Your task to perform on an android device: open app "ColorNote Notepad Notes" (install if not already installed) Image 0: 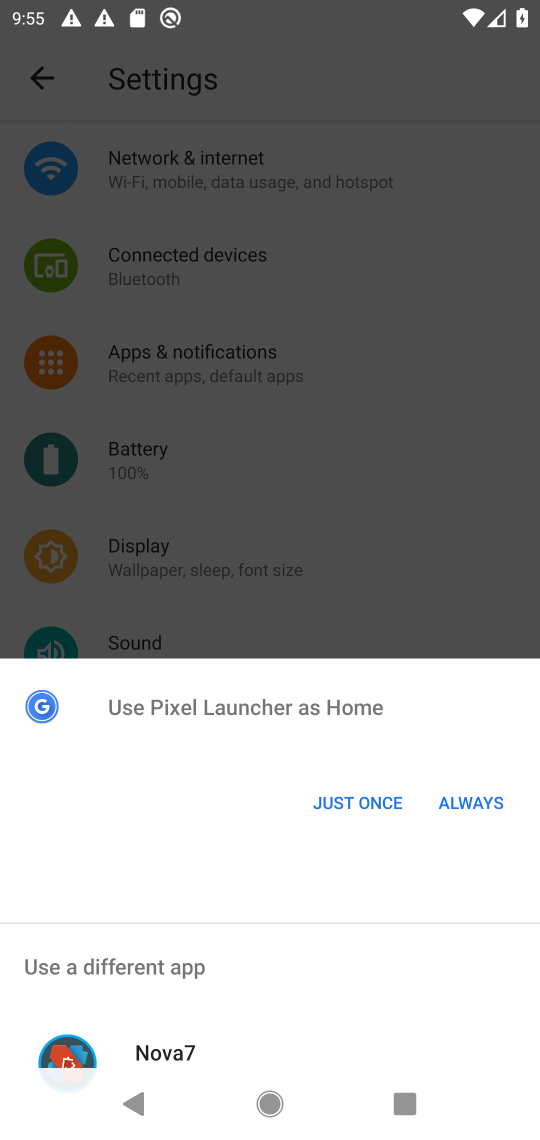
Step 0: click (376, 800)
Your task to perform on an android device: open app "ColorNote Notepad Notes" (install if not already installed) Image 1: 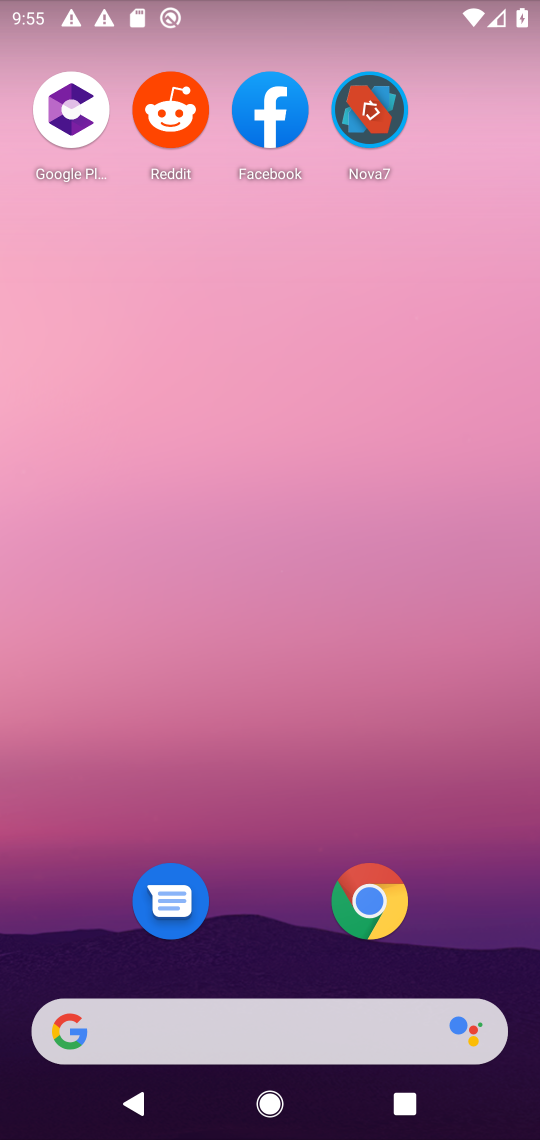
Step 1: drag from (327, 887) to (332, 243)
Your task to perform on an android device: open app "ColorNote Notepad Notes" (install if not already installed) Image 2: 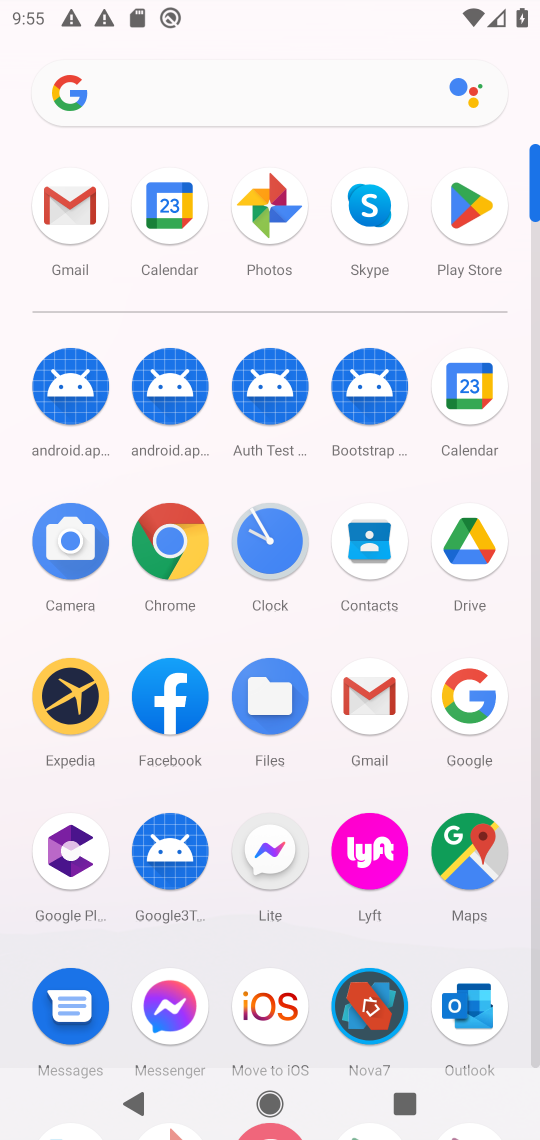
Step 2: click (486, 224)
Your task to perform on an android device: open app "ColorNote Notepad Notes" (install if not already installed) Image 3: 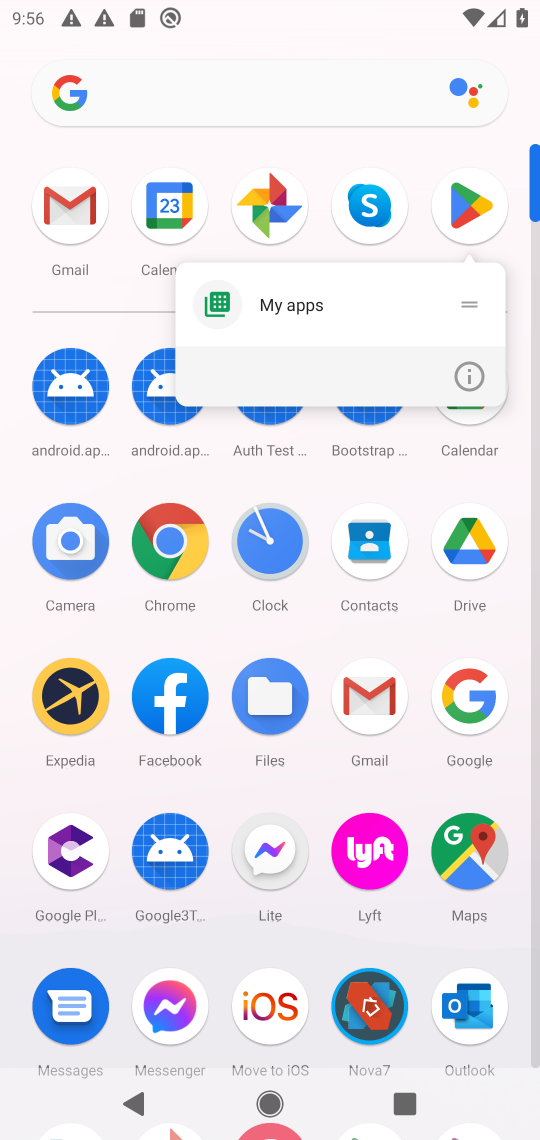
Step 3: click (448, 229)
Your task to perform on an android device: open app "ColorNote Notepad Notes" (install if not already installed) Image 4: 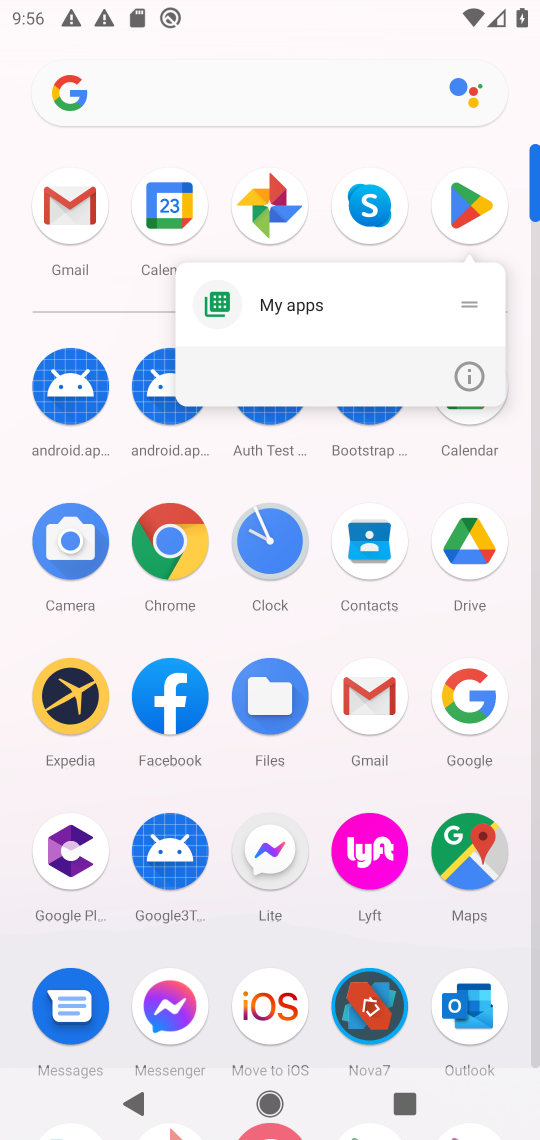
Step 4: click (427, 234)
Your task to perform on an android device: open app "ColorNote Notepad Notes" (install if not already installed) Image 5: 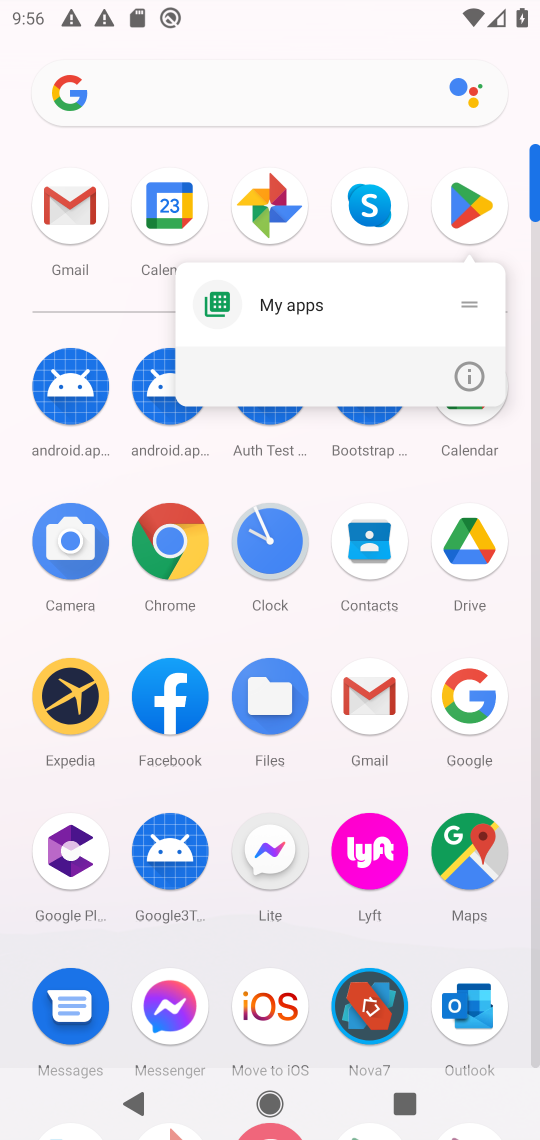
Step 5: click (470, 222)
Your task to perform on an android device: open app "ColorNote Notepad Notes" (install if not already installed) Image 6: 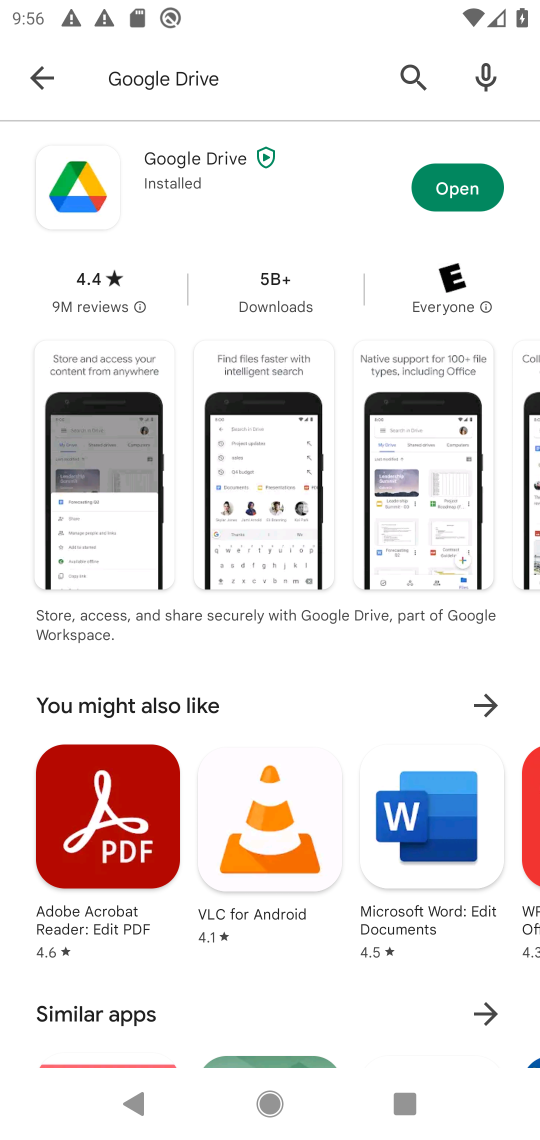
Step 6: press back button
Your task to perform on an android device: open app "ColorNote Notepad Notes" (install if not already installed) Image 7: 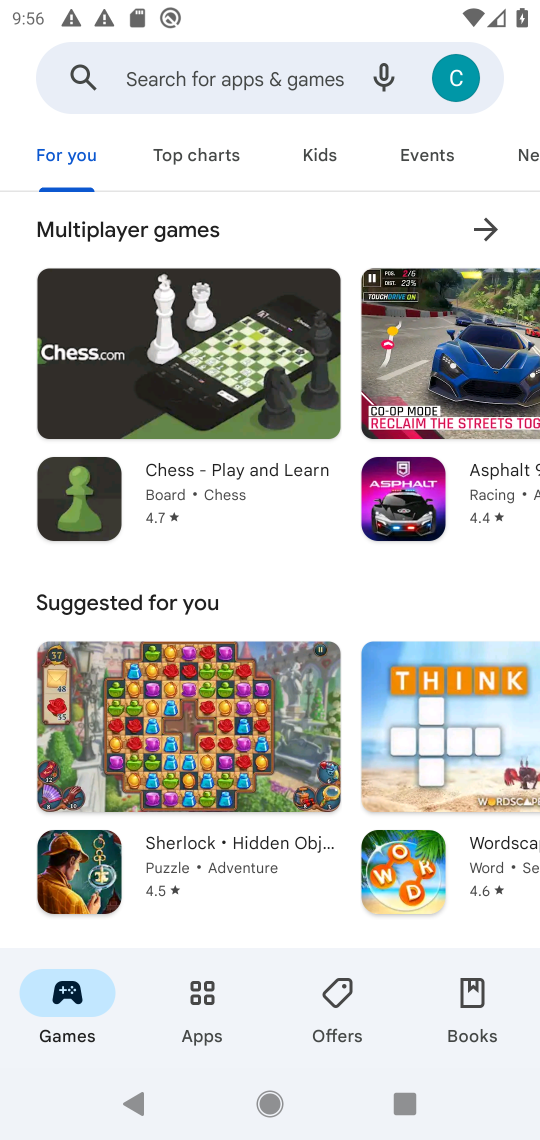
Step 7: click (288, 79)
Your task to perform on an android device: open app "ColorNote Notepad Notes" (install if not already installed) Image 8: 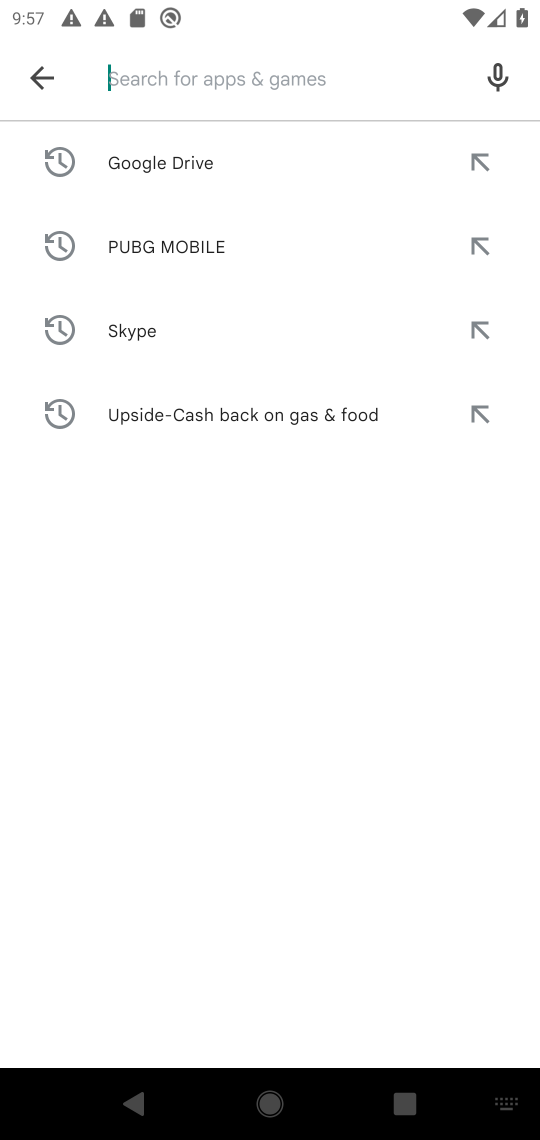
Step 8: type "ColorNote Notepad Notes"
Your task to perform on an android device: open app "ColorNote Notepad Notes" (install if not already installed) Image 9: 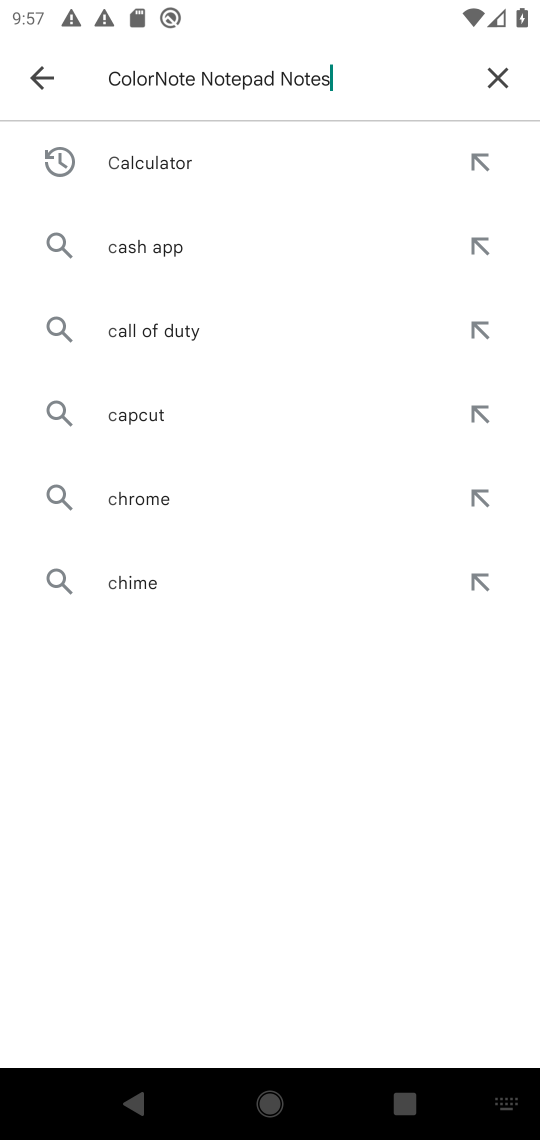
Step 9: press enter
Your task to perform on an android device: open app "ColorNote Notepad Notes" (install if not already installed) Image 10: 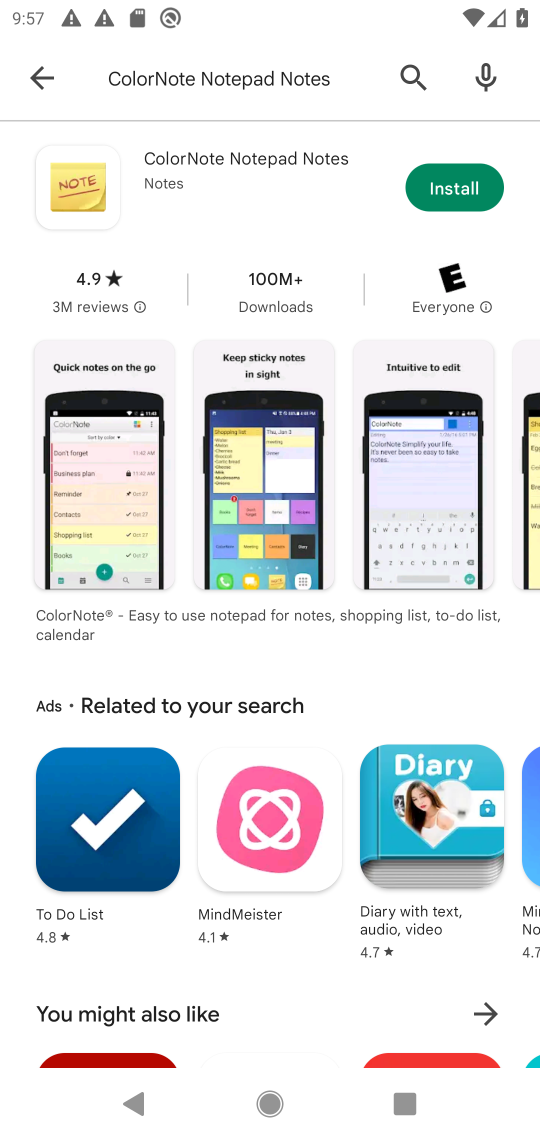
Step 10: click (460, 187)
Your task to perform on an android device: open app "ColorNote Notepad Notes" (install if not already installed) Image 11: 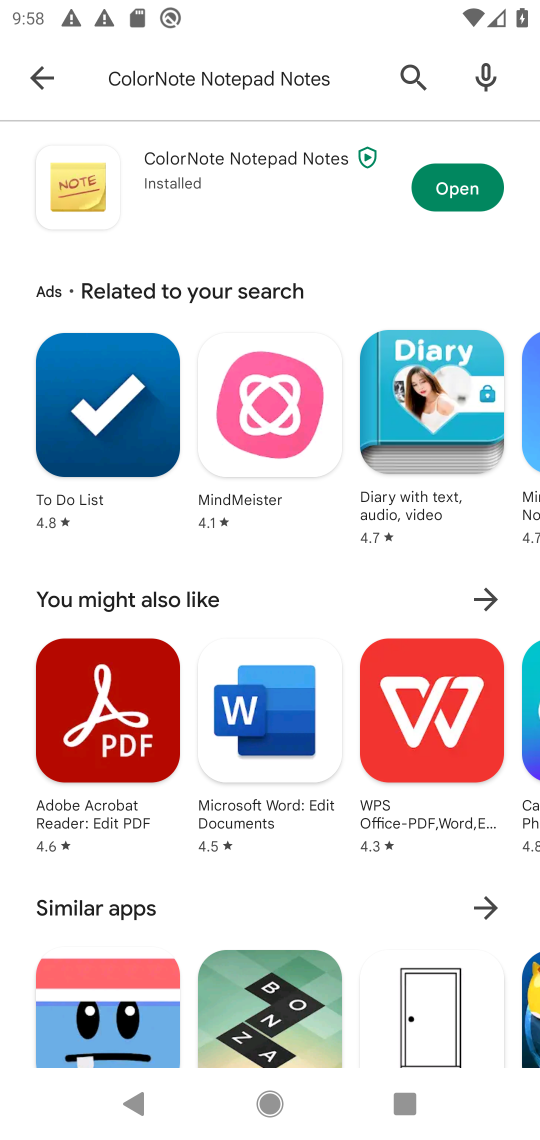
Step 11: click (460, 188)
Your task to perform on an android device: open app "ColorNote Notepad Notes" (install if not already installed) Image 12: 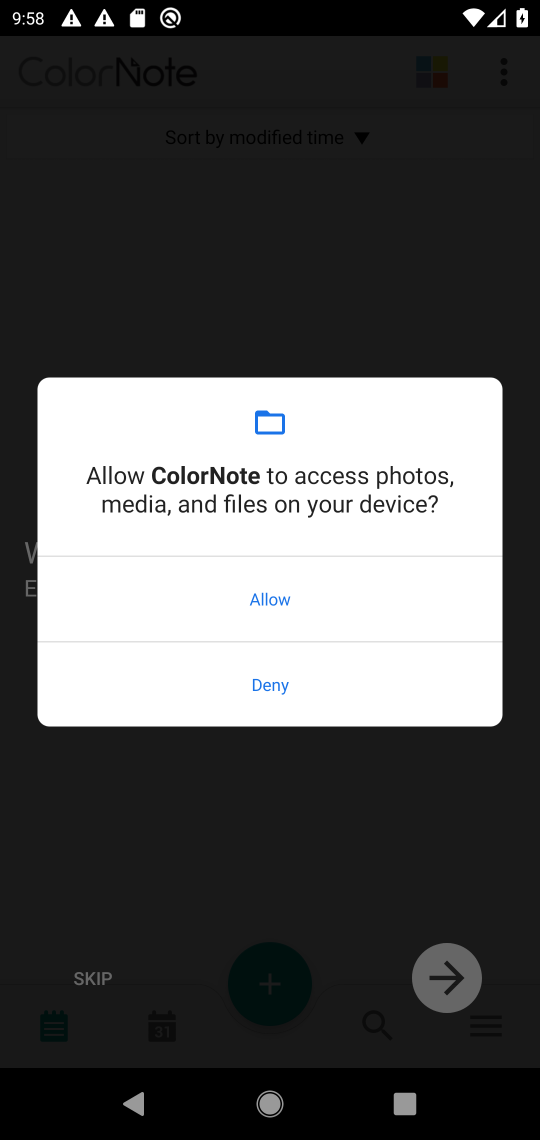
Step 12: click (263, 613)
Your task to perform on an android device: open app "ColorNote Notepad Notes" (install if not already installed) Image 13: 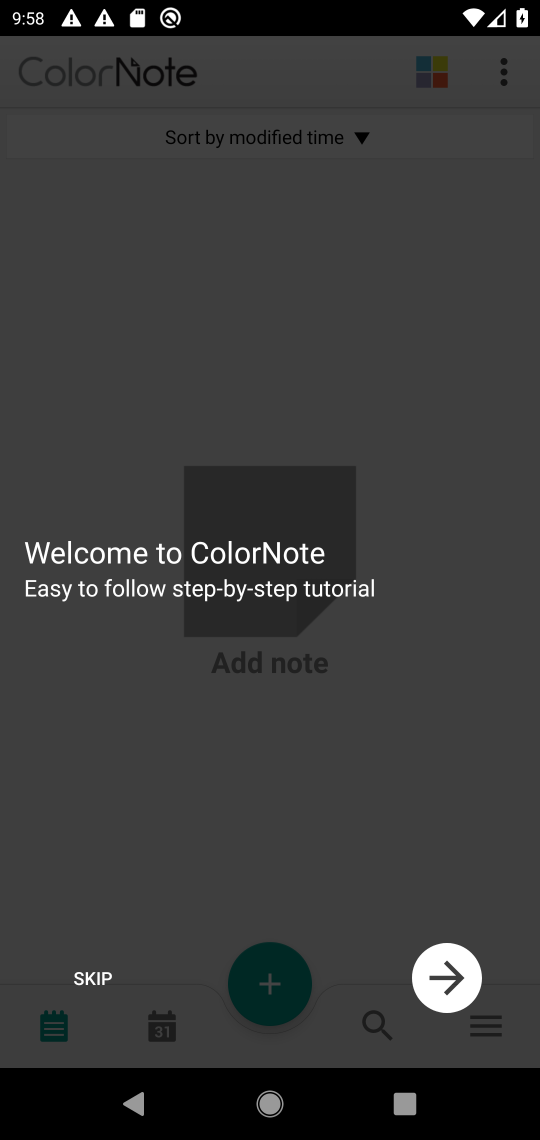
Step 13: click (446, 991)
Your task to perform on an android device: open app "ColorNote Notepad Notes" (install if not already installed) Image 14: 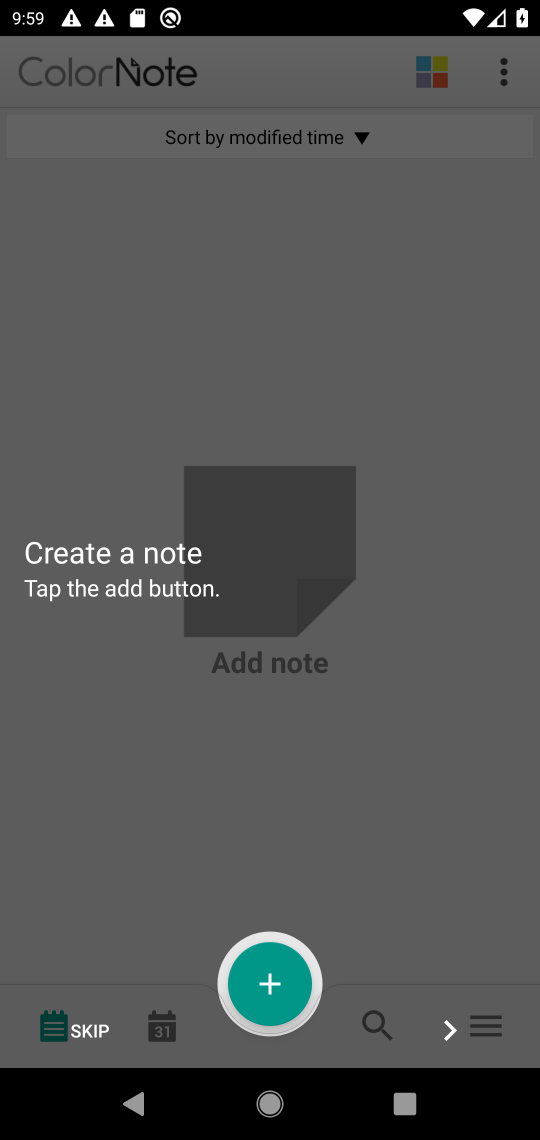
Step 14: click (333, 667)
Your task to perform on an android device: open app "ColorNote Notepad Notes" (install if not already installed) Image 15: 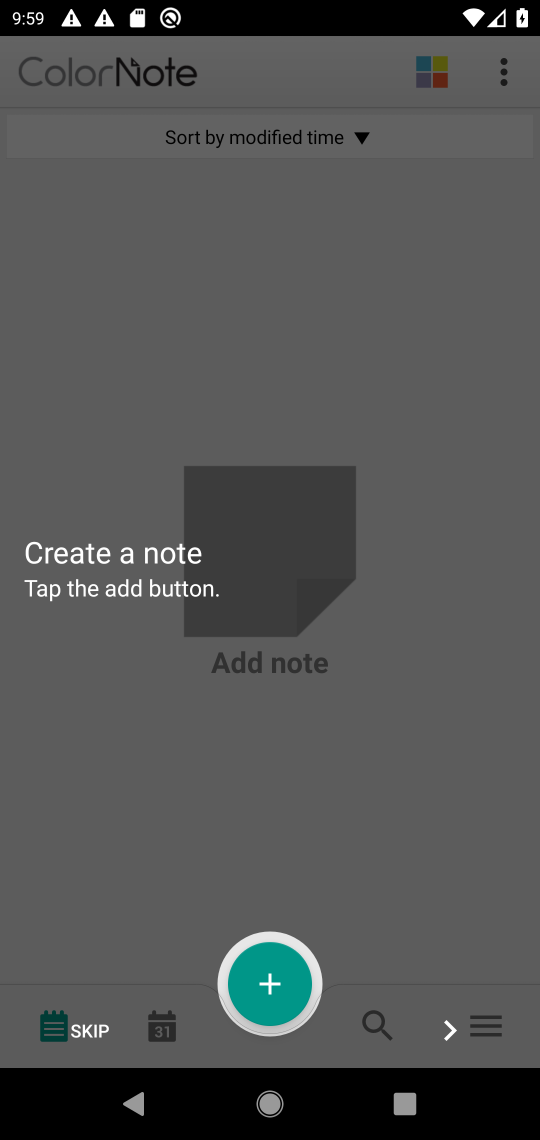
Step 15: task complete